Your task to perform on an android device: Open my contact list Image 0: 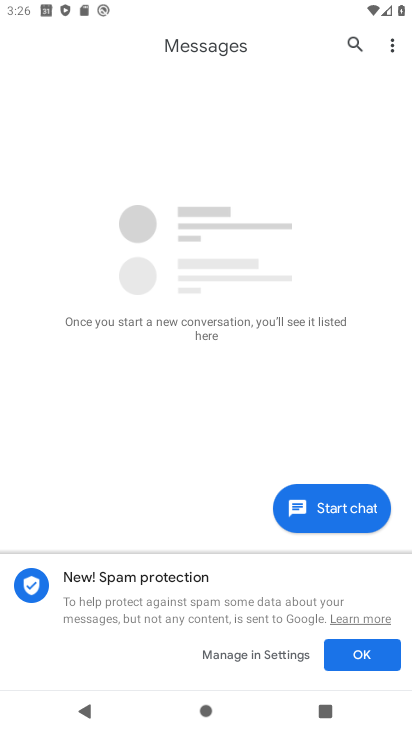
Step 0: press home button
Your task to perform on an android device: Open my contact list Image 1: 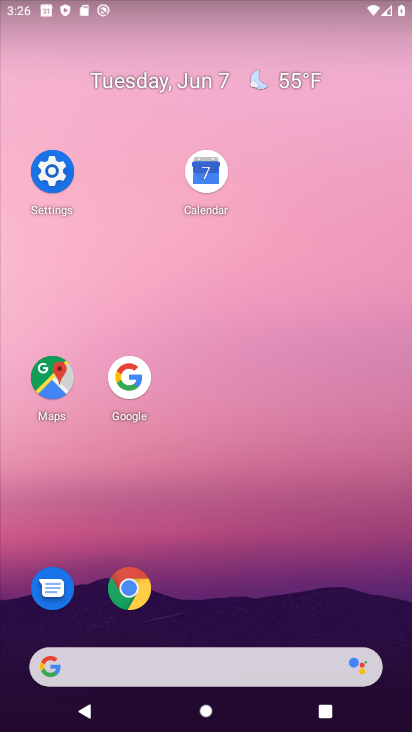
Step 1: drag from (260, 514) to (257, 65)
Your task to perform on an android device: Open my contact list Image 2: 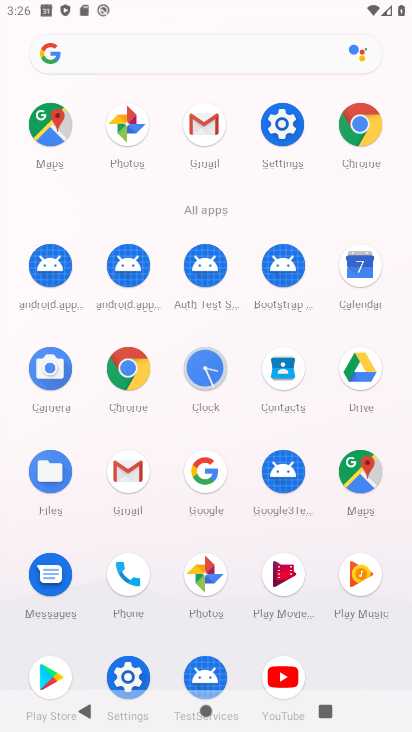
Step 2: click (283, 374)
Your task to perform on an android device: Open my contact list Image 3: 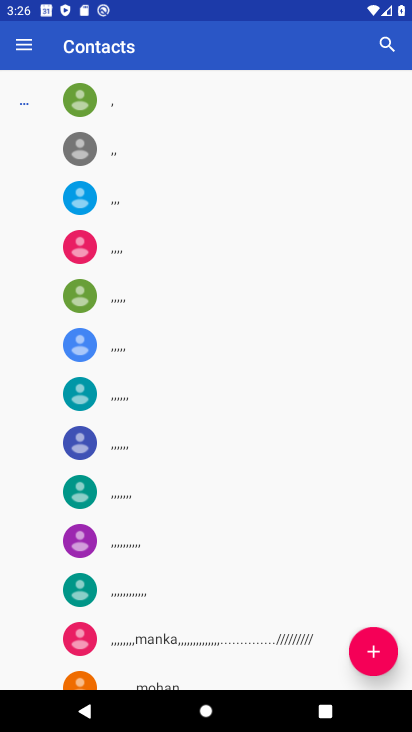
Step 3: task complete